Your task to perform on an android device: Open CNN.com Image 0: 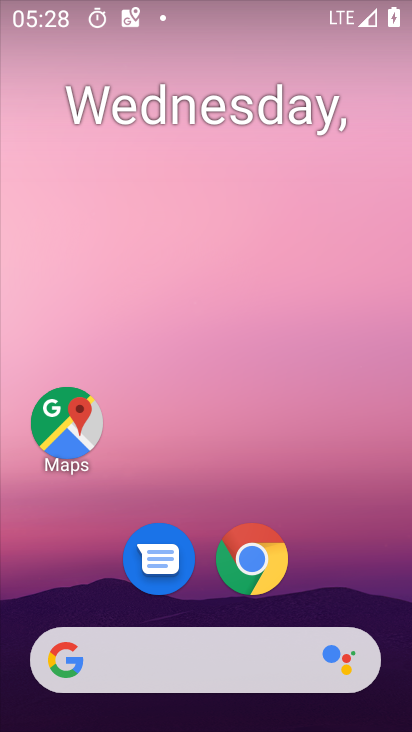
Step 0: click (258, 563)
Your task to perform on an android device: Open CNN.com Image 1: 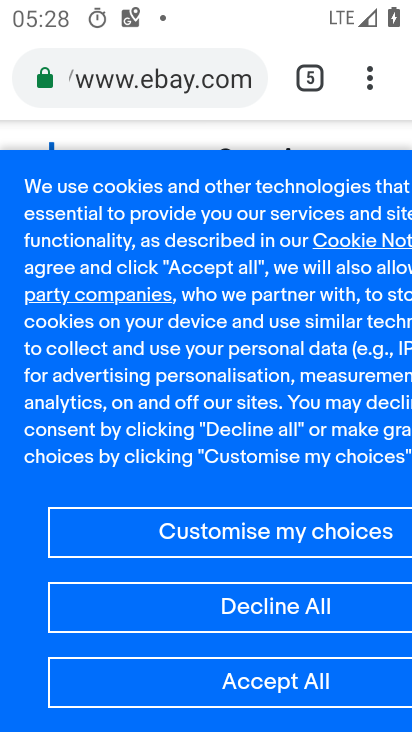
Step 1: click (315, 83)
Your task to perform on an android device: Open CNN.com Image 2: 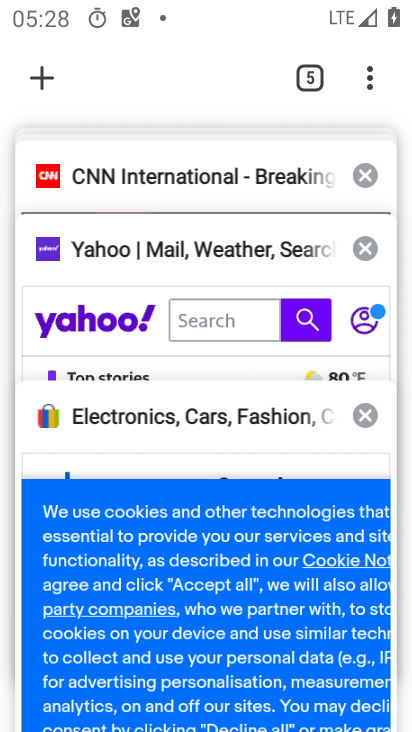
Step 2: click (140, 165)
Your task to perform on an android device: Open CNN.com Image 3: 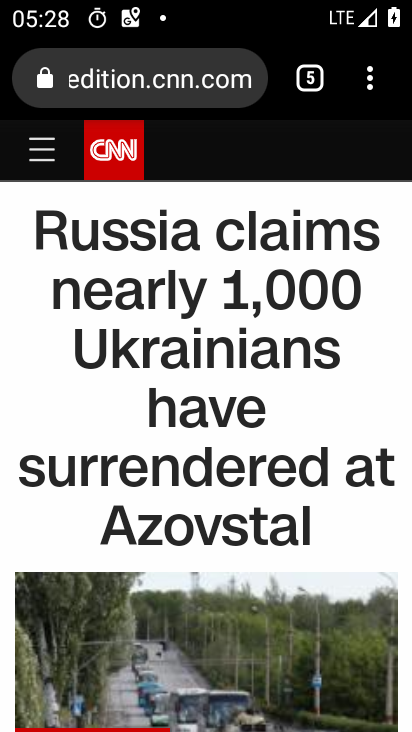
Step 3: task complete